Your task to perform on an android device: turn on bluetooth scan Image 0: 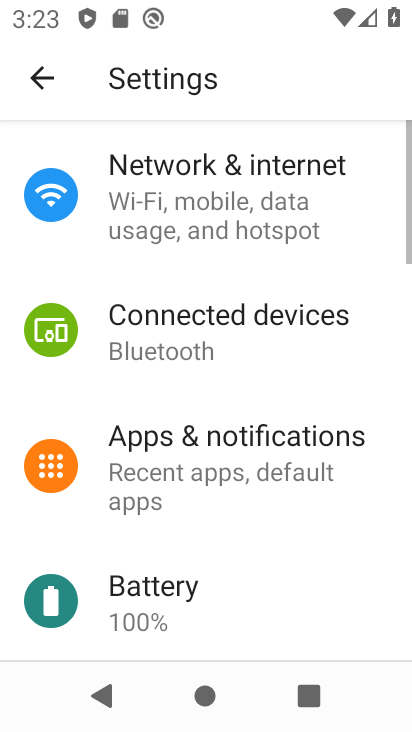
Step 0: press home button
Your task to perform on an android device: turn on bluetooth scan Image 1: 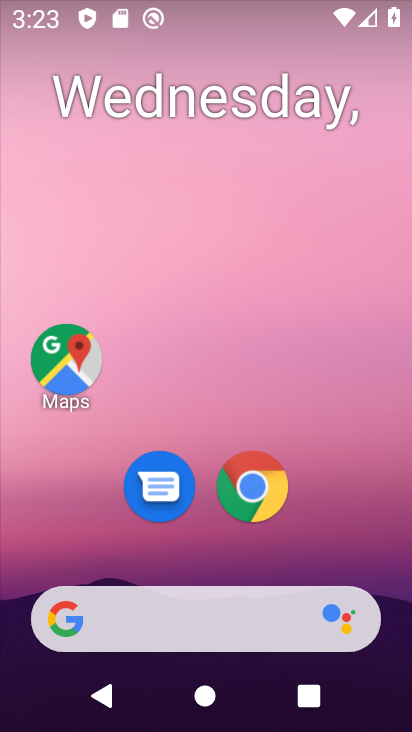
Step 1: drag from (160, 569) to (187, 212)
Your task to perform on an android device: turn on bluetooth scan Image 2: 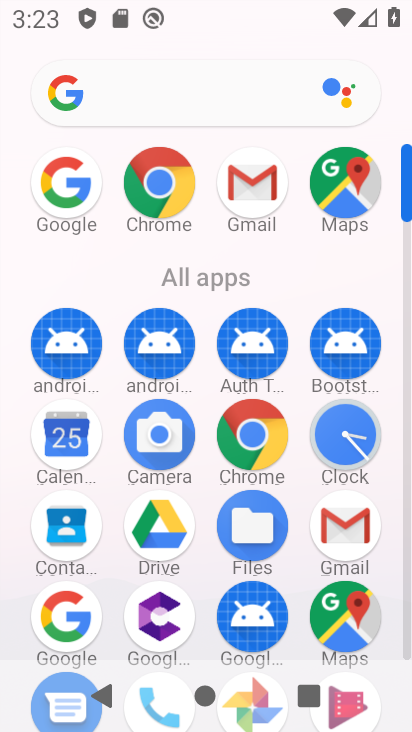
Step 2: drag from (225, 672) to (222, 333)
Your task to perform on an android device: turn on bluetooth scan Image 3: 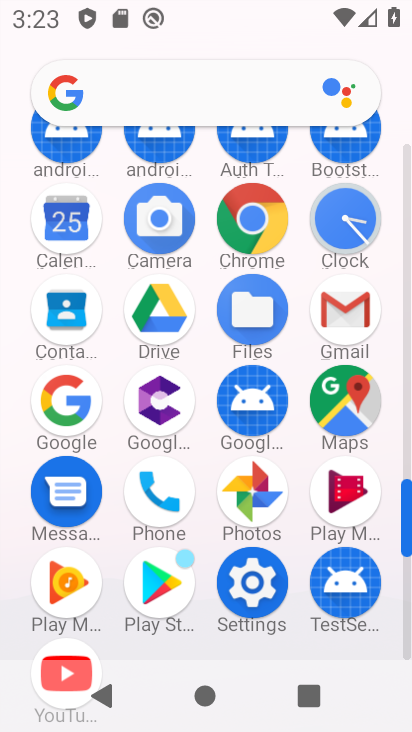
Step 3: click (255, 587)
Your task to perform on an android device: turn on bluetooth scan Image 4: 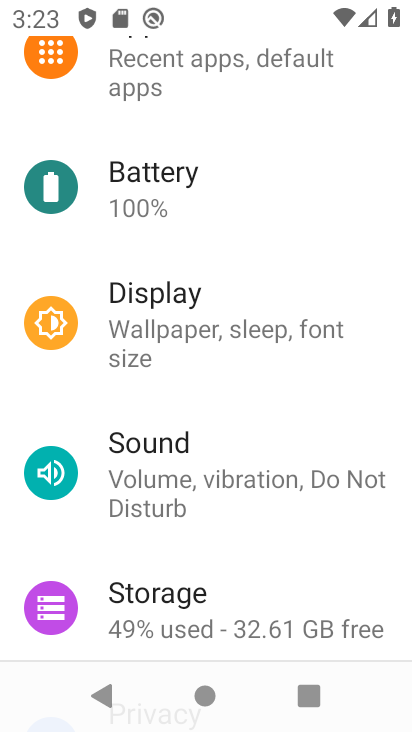
Step 4: drag from (228, 627) to (220, 263)
Your task to perform on an android device: turn on bluetooth scan Image 5: 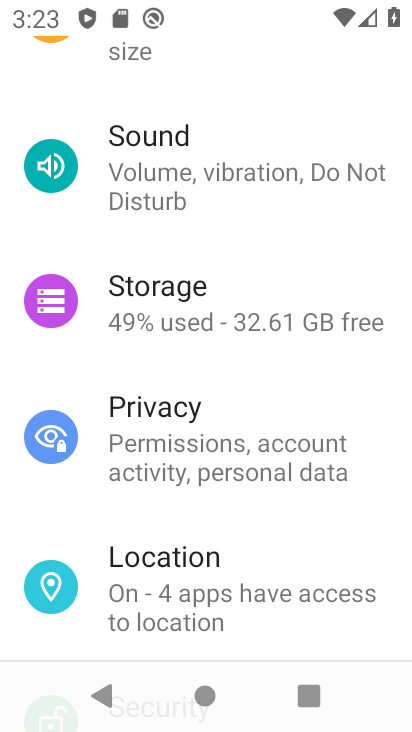
Step 5: click (175, 595)
Your task to perform on an android device: turn on bluetooth scan Image 6: 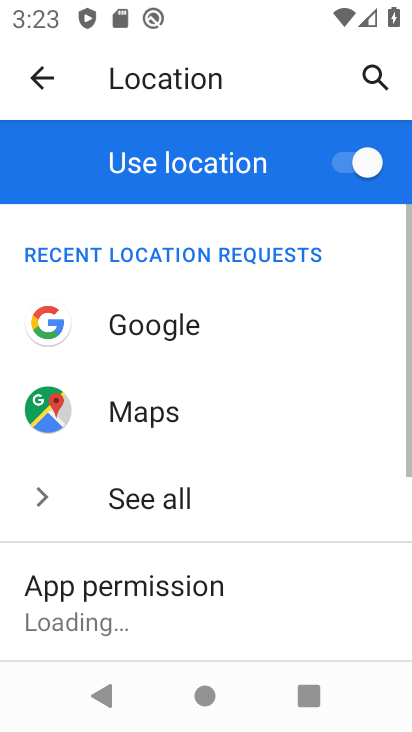
Step 6: drag from (177, 620) to (206, 306)
Your task to perform on an android device: turn on bluetooth scan Image 7: 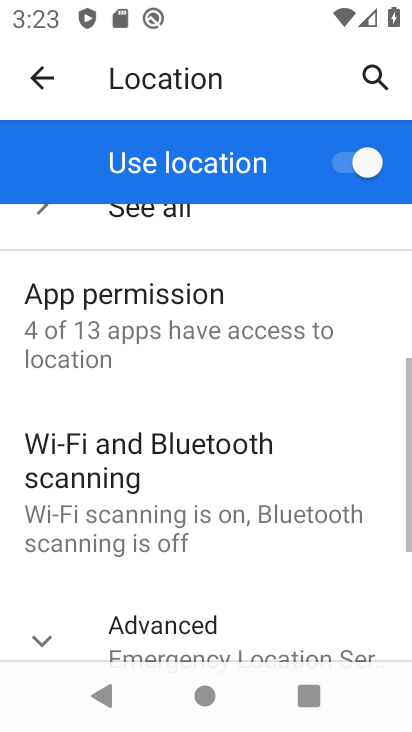
Step 7: click (161, 481)
Your task to perform on an android device: turn on bluetooth scan Image 8: 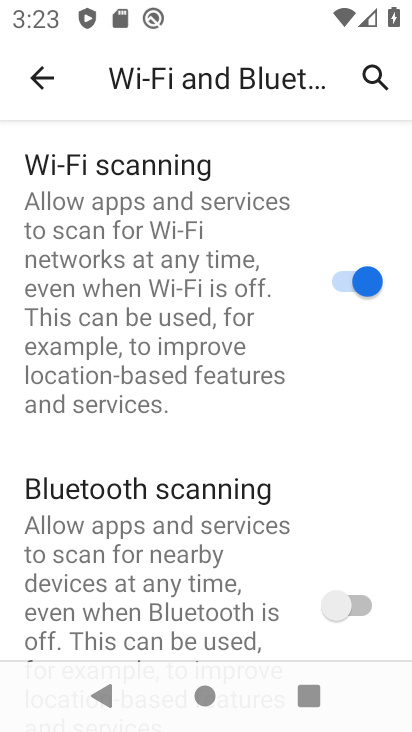
Step 8: click (359, 602)
Your task to perform on an android device: turn on bluetooth scan Image 9: 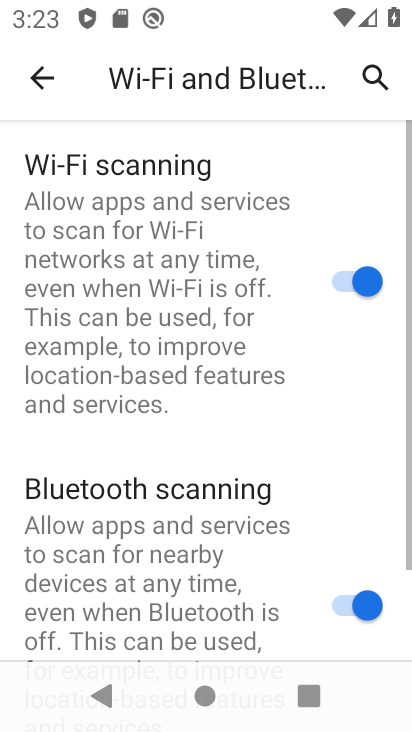
Step 9: task complete